Your task to perform on an android device: Go to ESPN.com Image 0: 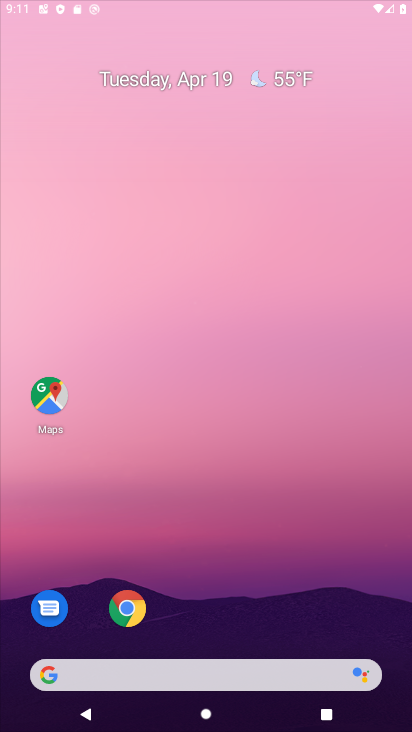
Step 0: click (303, 32)
Your task to perform on an android device: Go to ESPN.com Image 1: 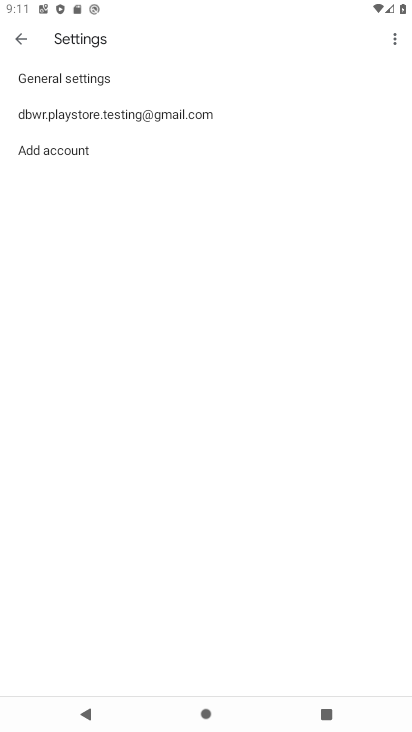
Step 1: press back button
Your task to perform on an android device: Go to ESPN.com Image 2: 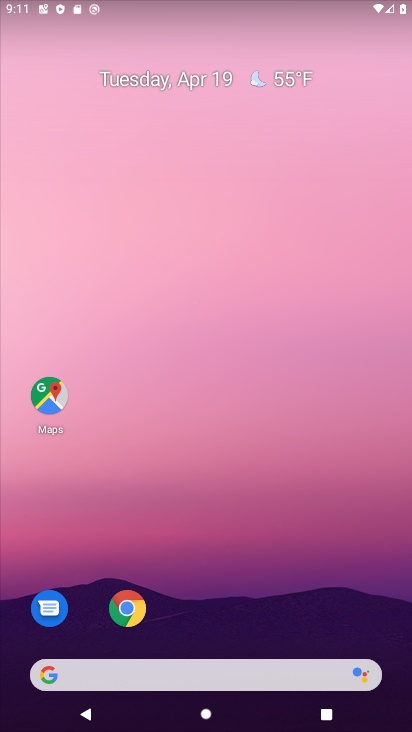
Step 2: click (132, 618)
Your task to perform on an android device: Go to ESPN.com Image 3: 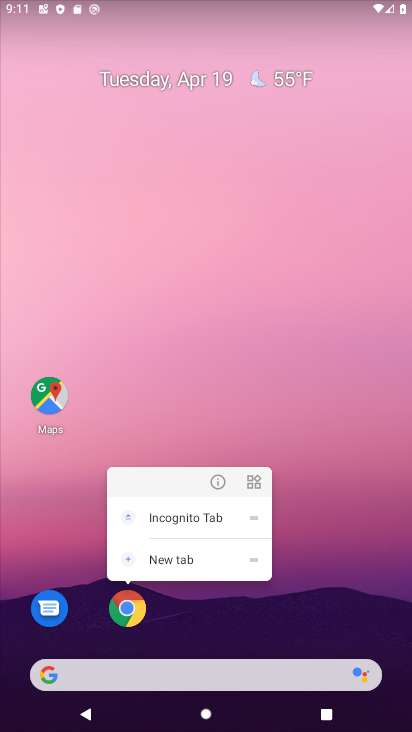
Step 3: click (132, 616)
Your task to perform on an android device: Go to ESPN.com Image 4: 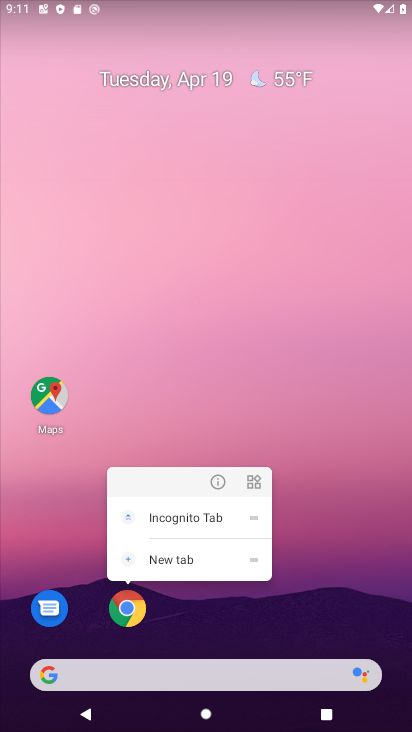
Step 4: click (131, 605)
Your task to perform on an android device: Go to ESPN.com Image 5: 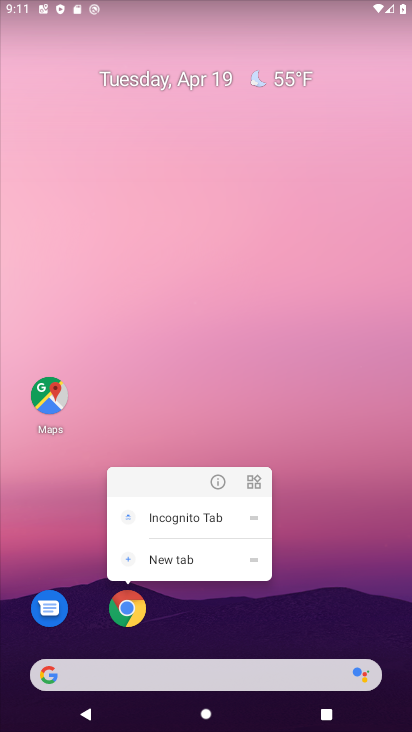
Step 5: click (127, 599)
Your task to perform on an android device: Go to ESPN.com Image 6: 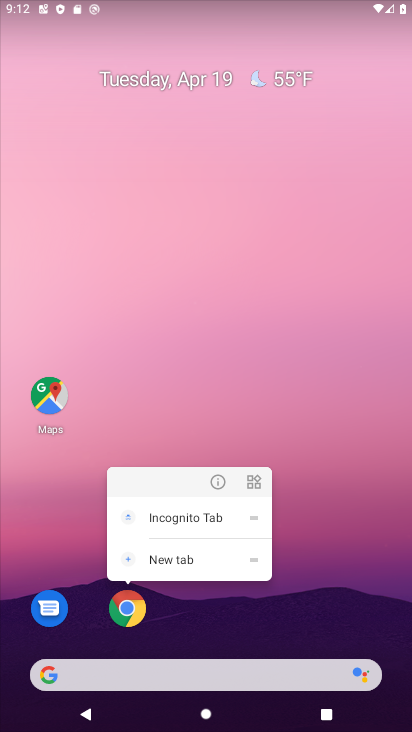
Step 6: click (117, 607)
Your task to perform on an android device: Go to ESPN.com Image 7: 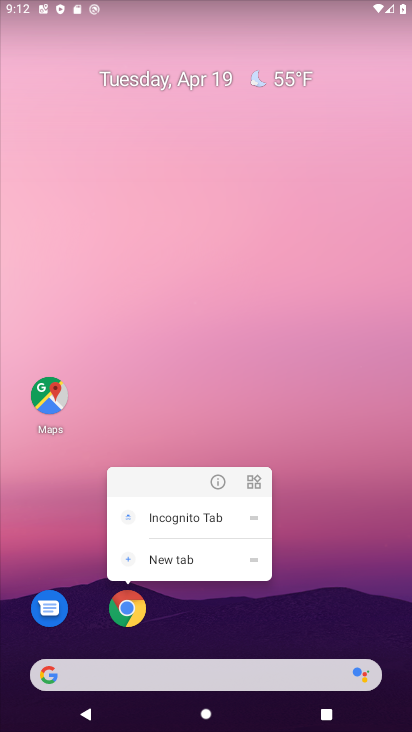
Step 7: click (135, 595)
Your task to perform on an android device: Go to ESPN.com Image 8: 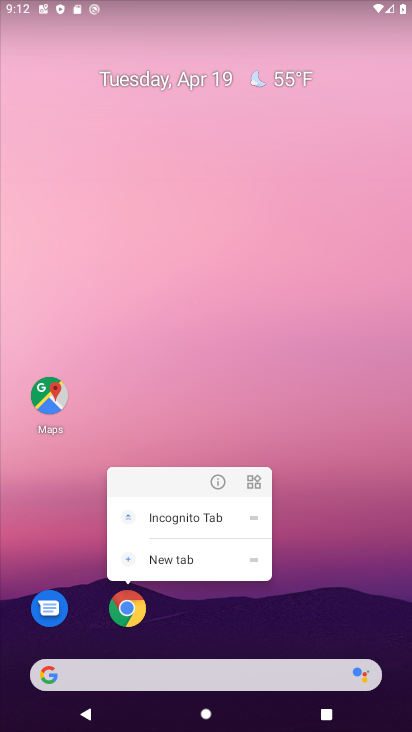
Step 8: click (134, 594)
Your task to perform on an android device: Go to ESPN.com Image 9: 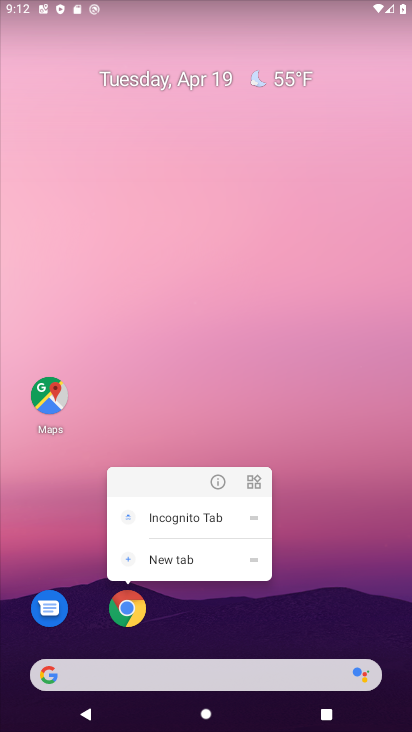
Step 9: click (122, 602)
Your task to perform on an android device: Go to ESPN.com Image 10: 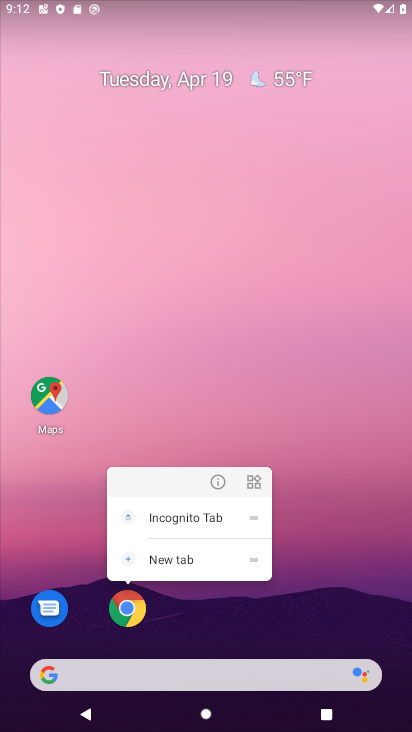
Step 10: click (122, 624)
Your task to perform on an android device: Go to ESPN.com Image 11: 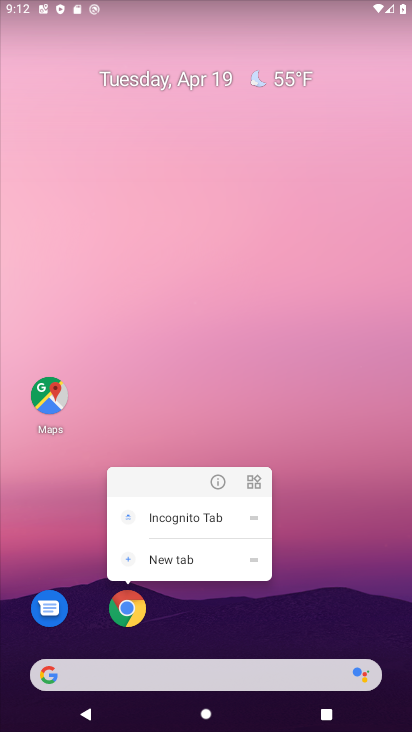
Step 11: click (133, 613)
Your task to perform on an android device: Go to ESPN.com Image 12: 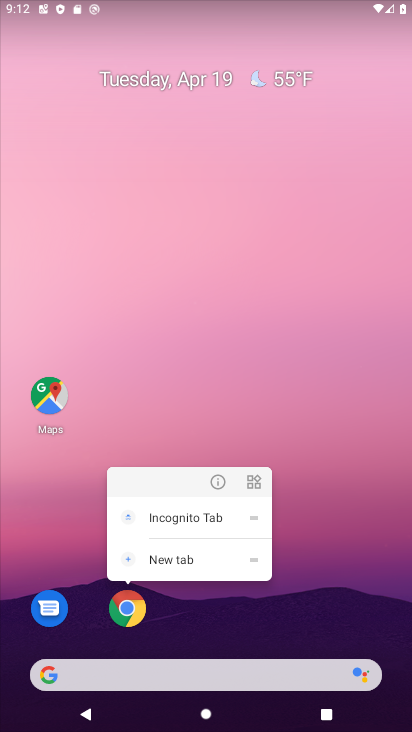
Step 12: click (130, 602)
Your task to perform on an android device: Go to ESPN.com Image 13: 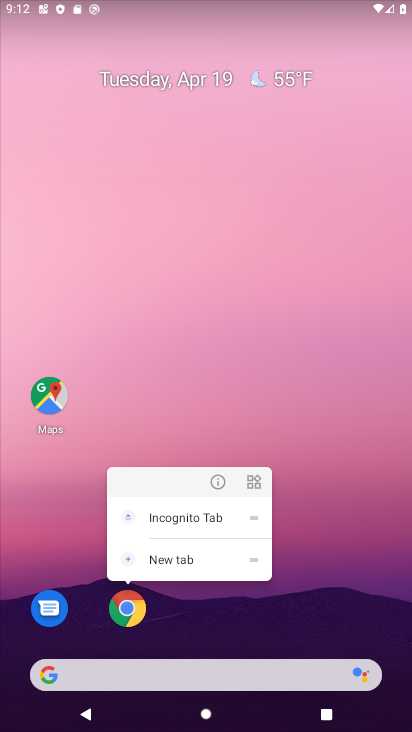
Step 13: click (131, 606)
Your task to perform on an android device: Go to ESPN.com Image 14: 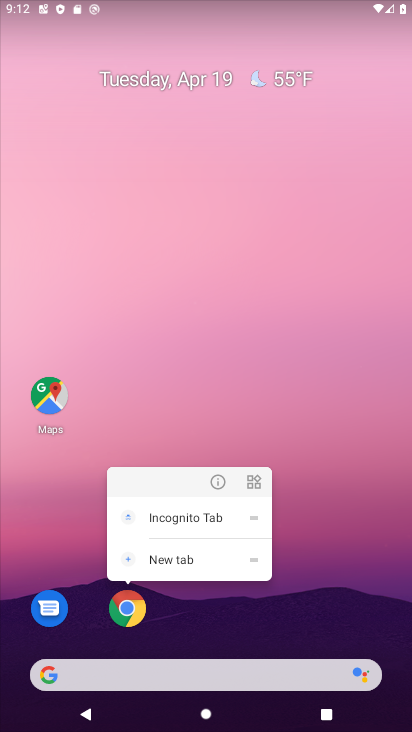
Step 14: click (131, 613)
Your task to perform on an android device: Go to ESPN.com Image 15: 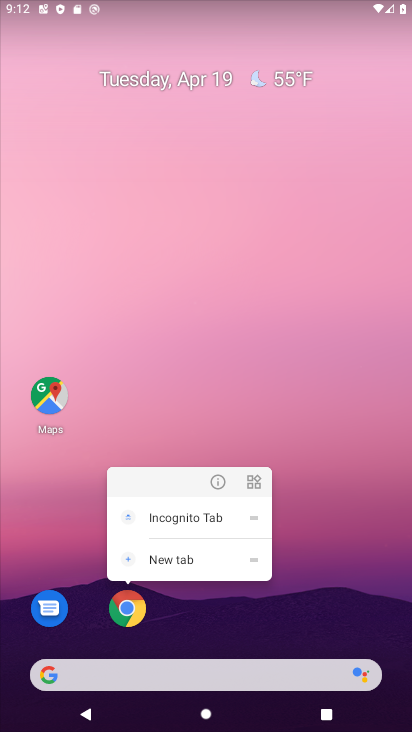
Step 15: click (132, 612)
Your task to perform on an android device: Go to ESPN.com Image 16: 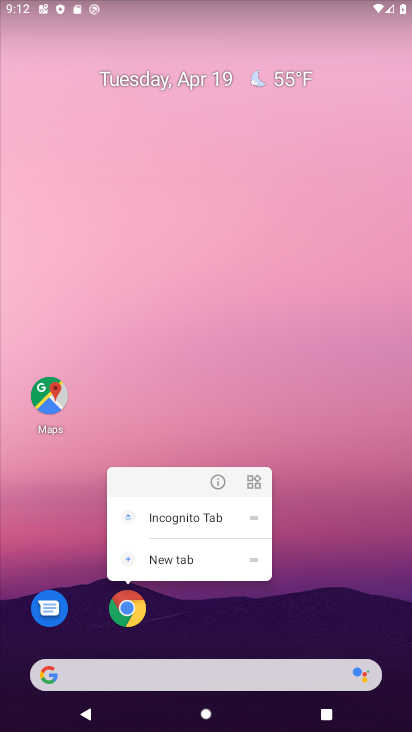
Step 16: click (132, 612)
Your task to perform on an android device: Go to ESPN.com Image 17: 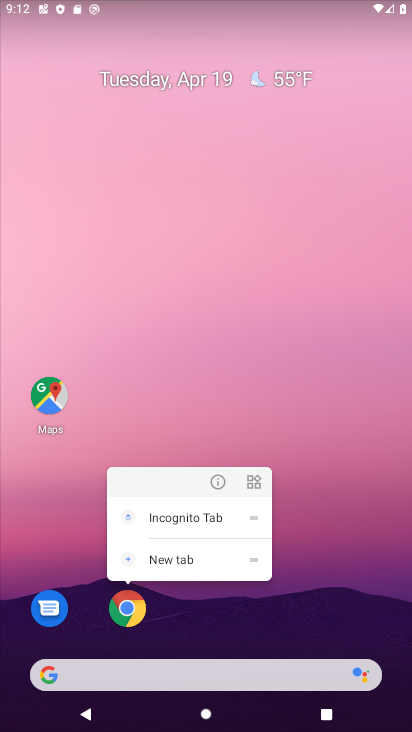
Step 17: click (132, 615)
Your task to perform on an android device: Go to ESPN.com Image 18: 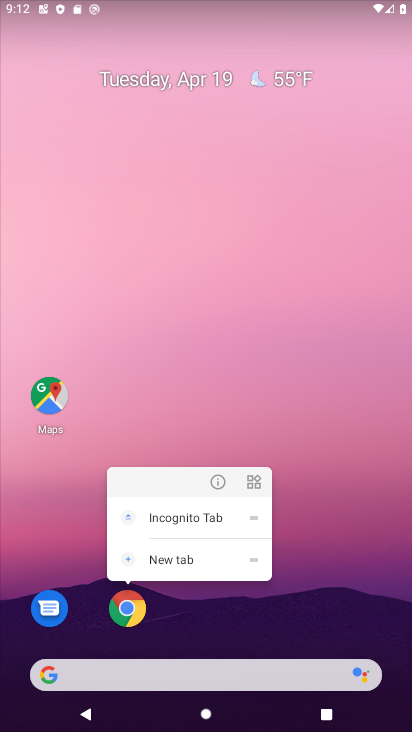
Step 18: click (125, 607)
Your task to perform on an android device: Go to ESPN.com Image 19: 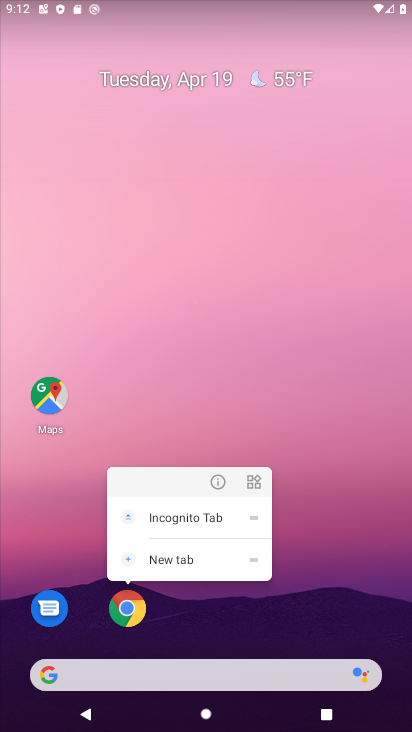
Step 19: click (118, 606)
Your task to perform on an android device: Go to ESPN.com Image 20: 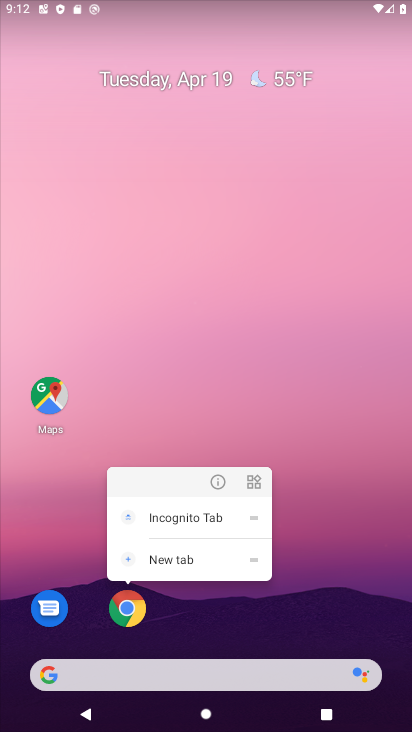
Step 20: drag from (226, 649) to (378, 49)
Your task to perform on an android device: Go to ESPN.com Image 21: 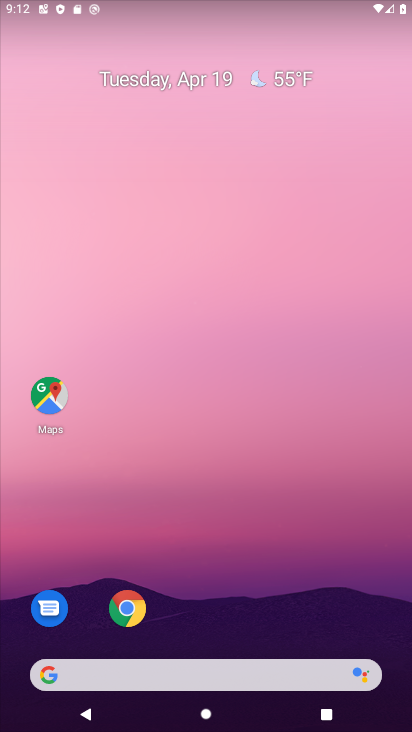
Step 21: drag from (242, 611) to (367, 31)
Your task to perform on an android device: Go to ESPN.com Image 22: 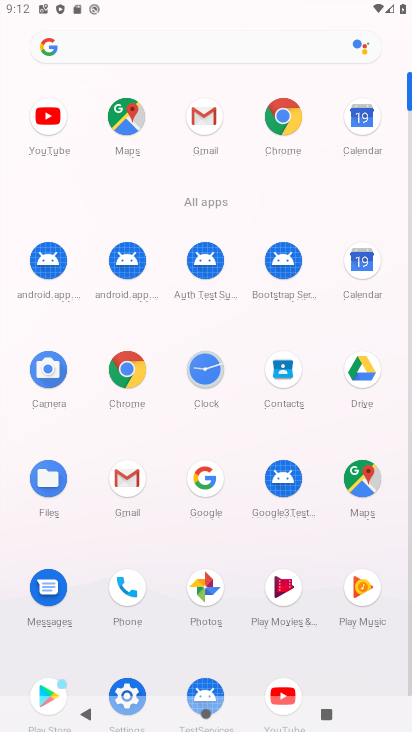
Step 22: click (290, 108)
Your task to perform on an android device: Go to ESPN.com Image 23: 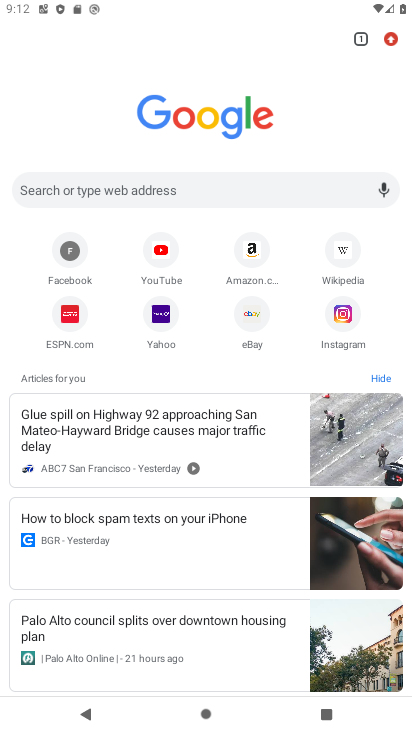
Step 23: click (65, 326)
Your task to perform on an android device: Go to ESPN.com Image 24: 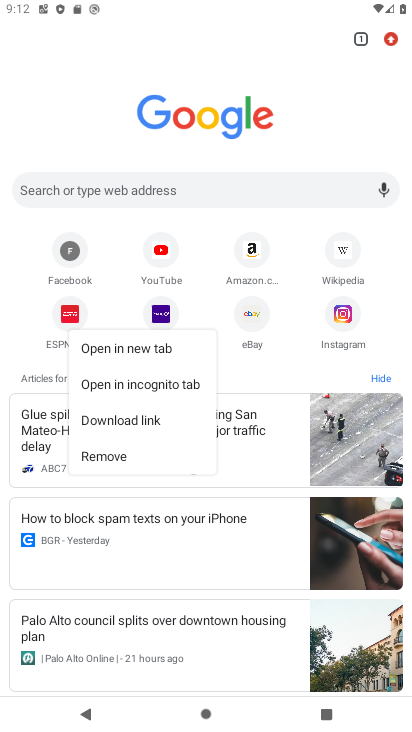
Step 24: click (67, 312)
Your task to perform on an android device: Go to ESPN.com Image 25: 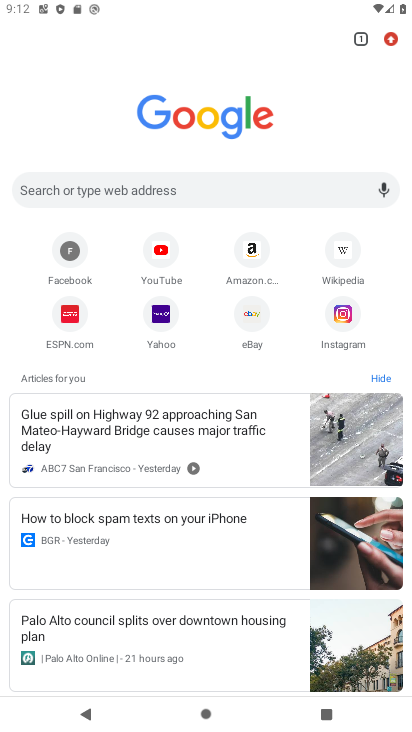
Step 25: click (74, 320)
Your task to perform on an android device: Go to ESPN.com Image 26: 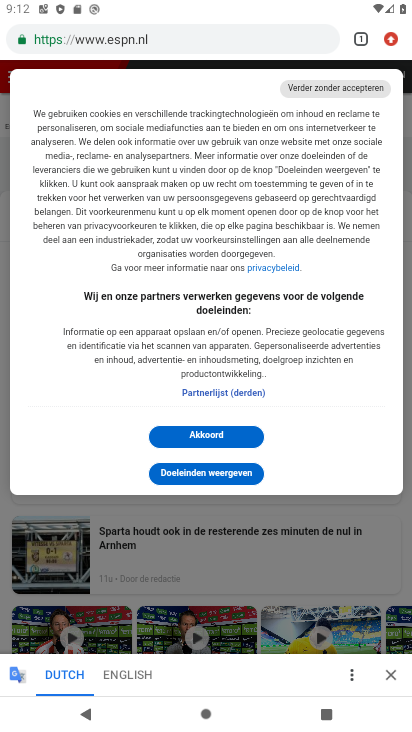
Step 26: task complete